Your task to perform on an android device: clear history in the chrome app Image 0: 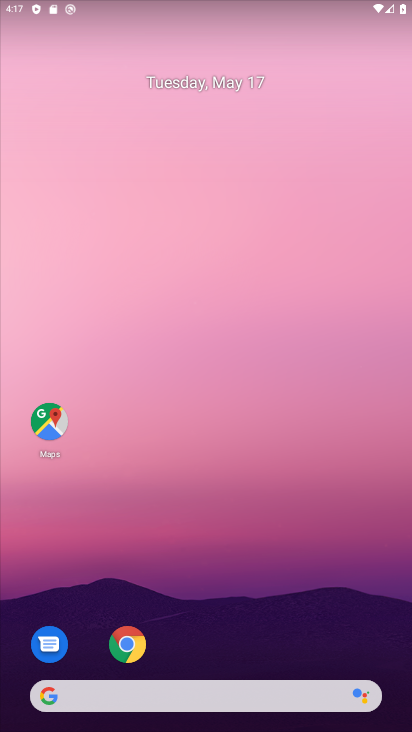
Step 0: click (126, 631)
Your task to perform on an android device: clear history in the chrome app Image 1: 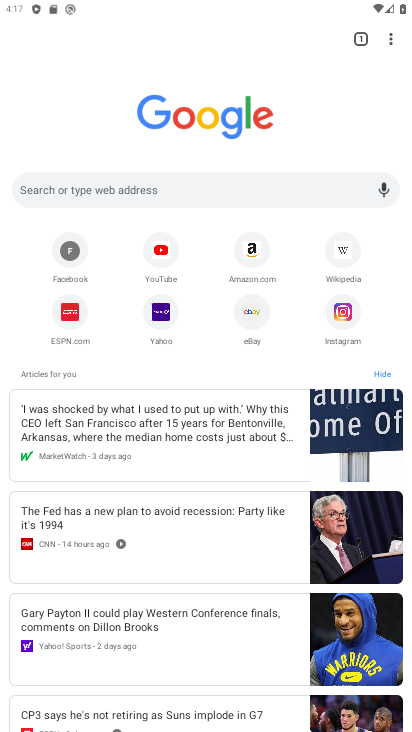
Step 1: click (386, 41)
Your task to perform on an android device: clear history in the chrome app Image 2: 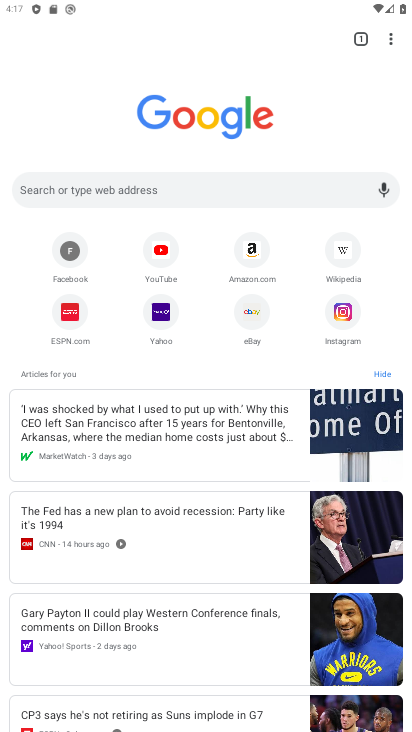
Step 2: task complete